Your task to perform on an android device: Clear all items from cart on target. Add logitech g pro to the cart on target Image 0: 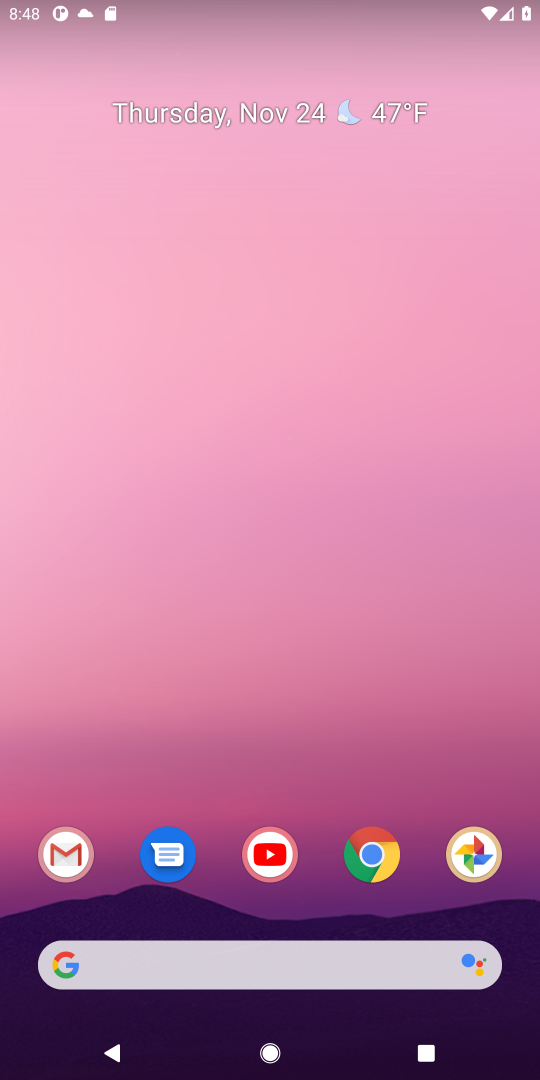
Step 0: click (370, 861)
Your task to perform on an android device: Clear all items from cart on target. Add logitech g pro to the cart on target Image 1: 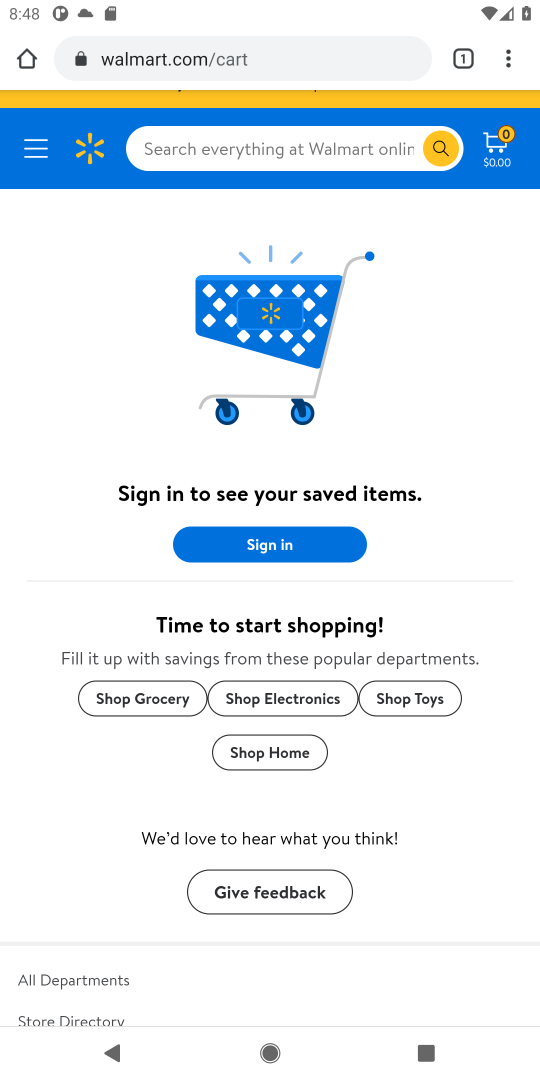
Step 1: click (201, 63)
Your task to perform on an android device: Clear all items from cart on target. Add logitech g pro to the cart on target Image 2: 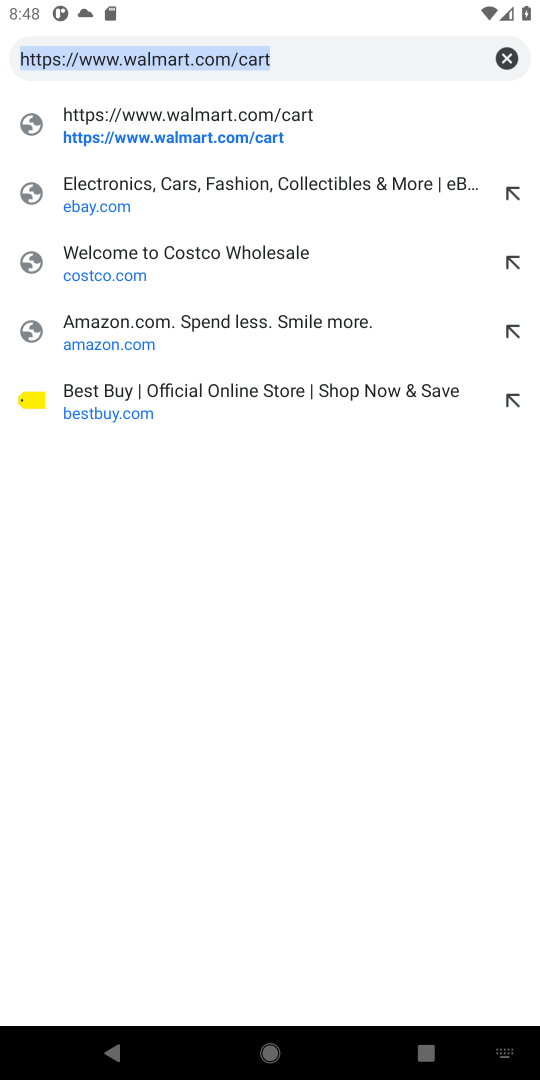
Step 2: type "target.com"
Your task to perform on an android device: Clear all items from cart on target. Add logitech g pro to the cart on target Image 3: 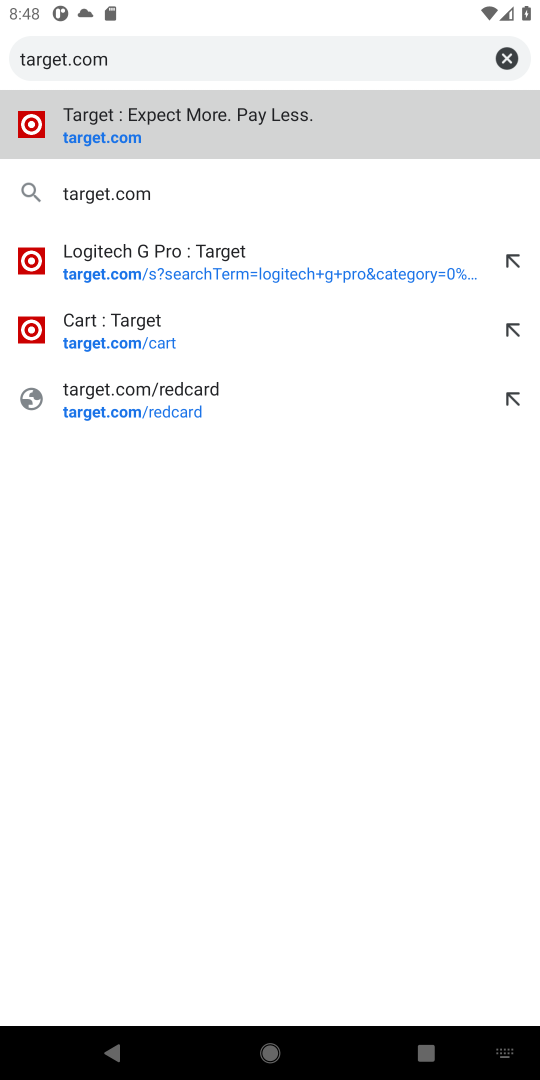
Step 3: click (123, 138)
Your task to perform on an android device: Clear all items from cart on target. Add logitech g pro to the cart on target Image 4: 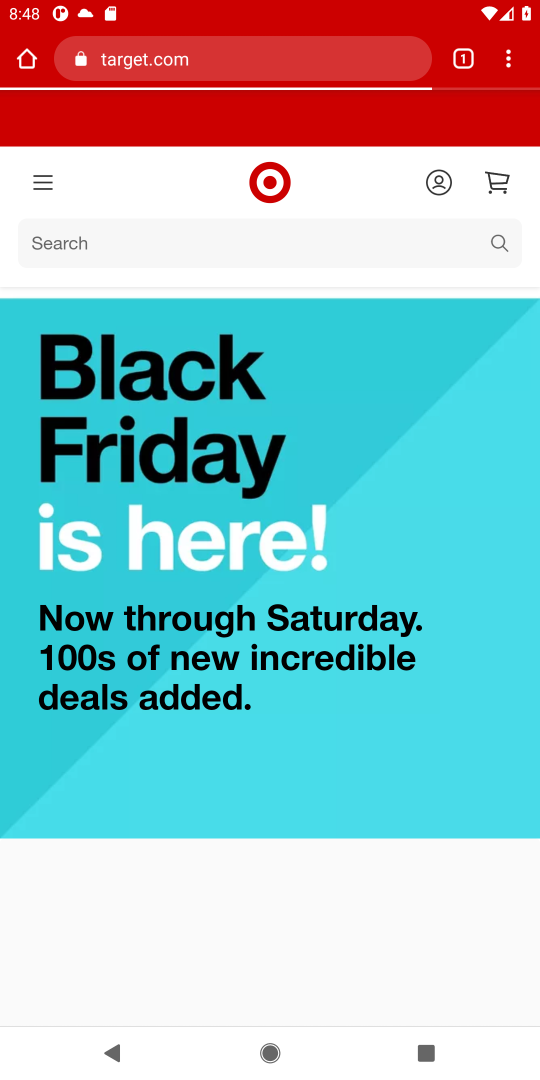
Step 4: click (498, 188)
Your task to perform on an android device: Clear all items from cart on target. Add logitech g pro to the cart on target Image 5: 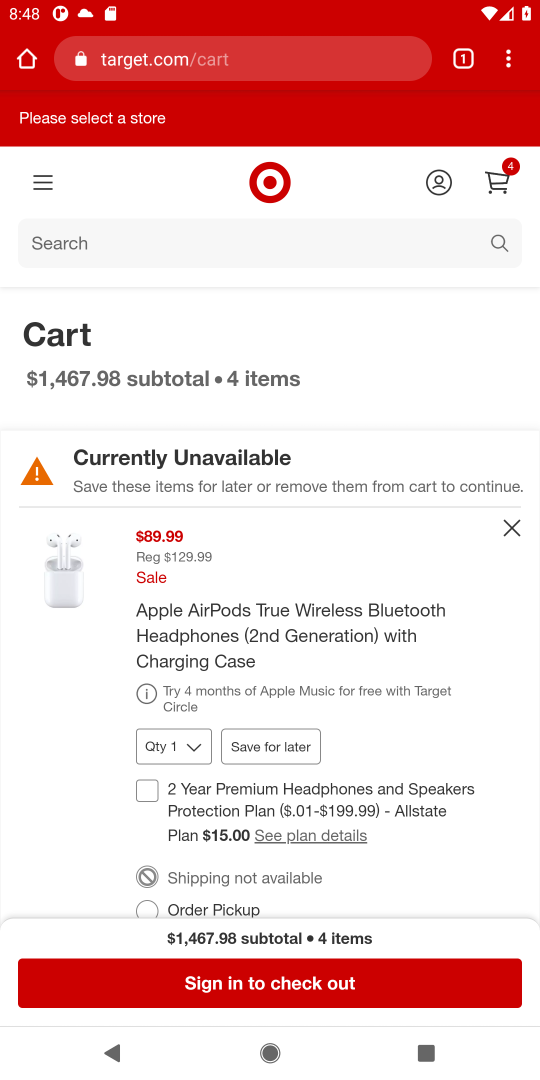
Step 5: click (514, 535)
Your task to perform on an android device: Clear all items from cart on target. Add logitech g pro to the cart on target Image 6: 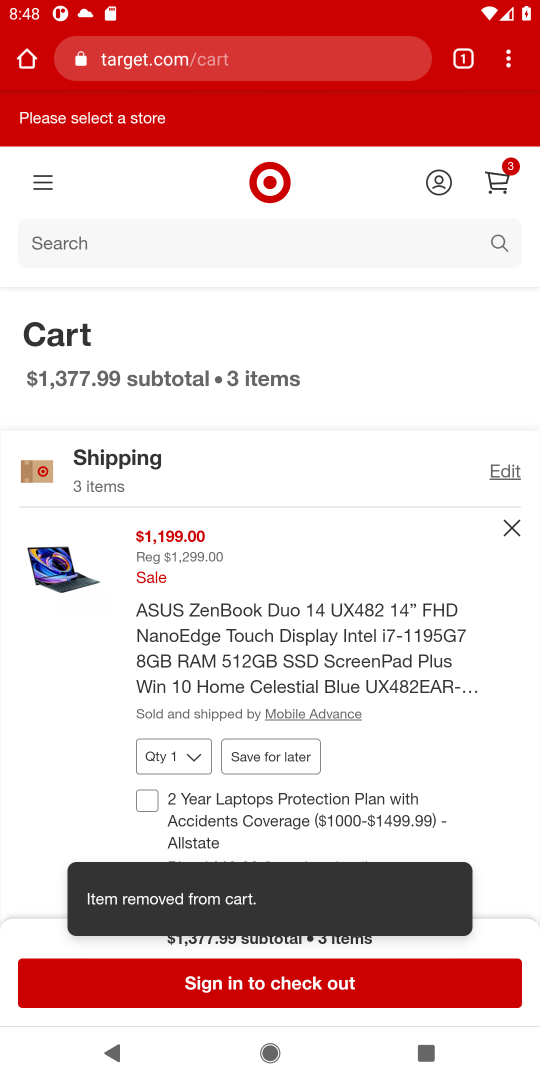
Step 6: click (514, 535)
Your task to perform on an android device: Clear all items from cart on target. Add logitech g pro to the cart on target Image 7: 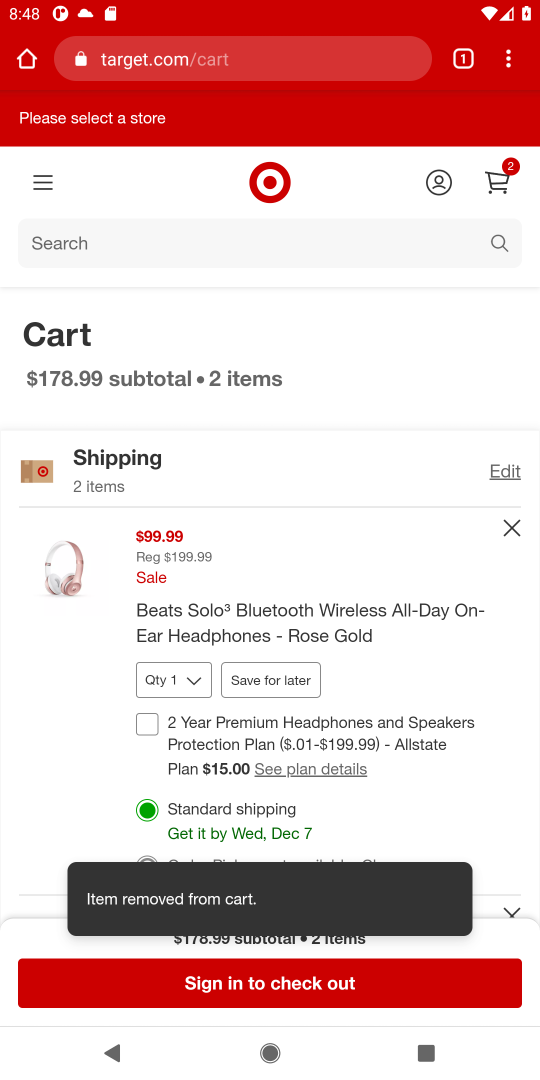
Step 7: click (514, 531)
Your task to perform on an android device: Clear all items from cart on target. Add logitech g pro to the cart on target Image 8: 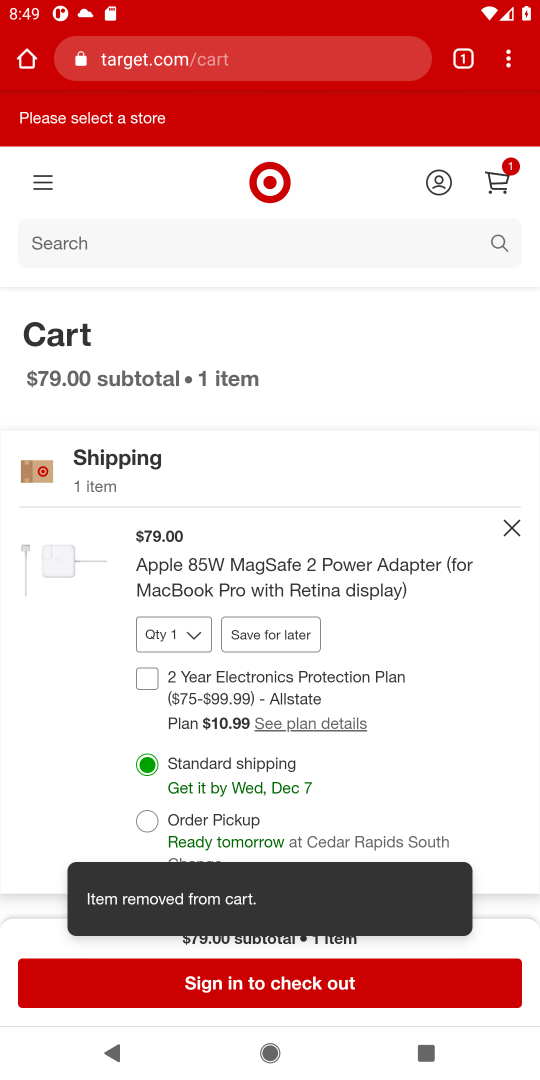
Step 8: click (514, 531)
Your task to perform on an android device: Clear all items from cart on target. Add logitech g pro to the cart on target Image 9: 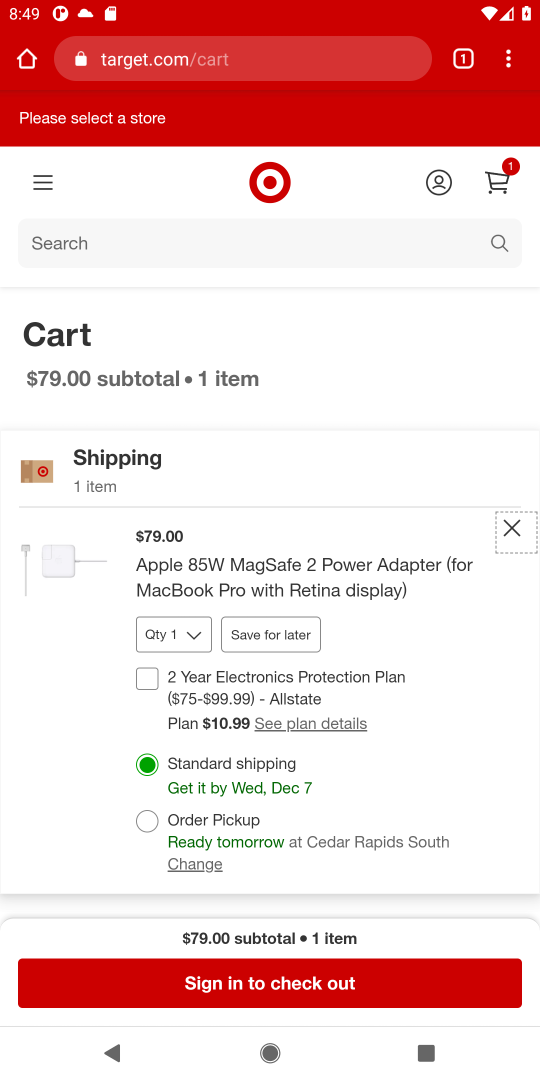
Step 9: click (514, 531)
Your task to perform on an android device: Clear all items from cart on target. Add logitech g pro to the cart on target Image 10: 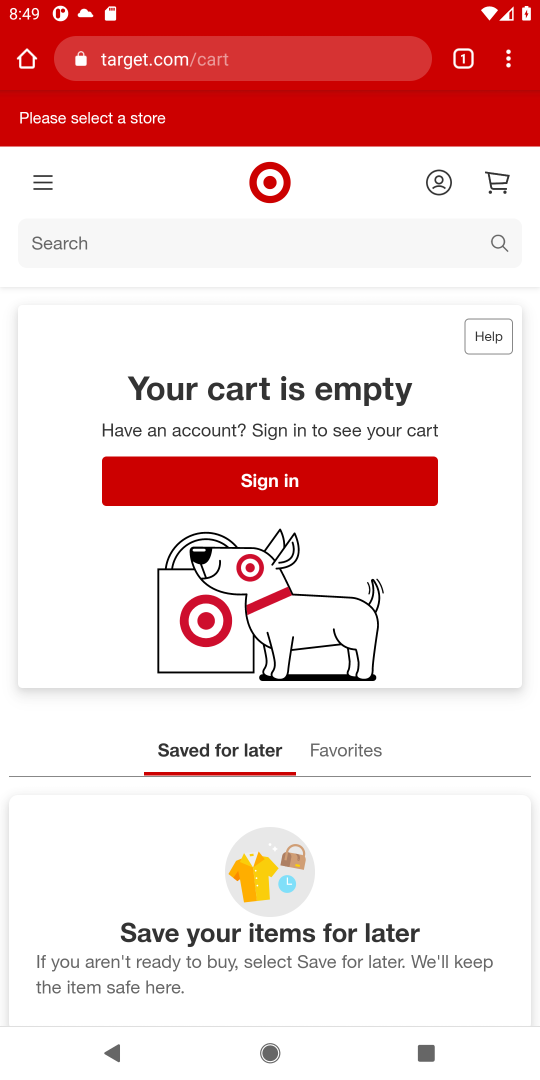
Step 10: click (426, 242)
Your task to perform on an android device: Clear all items from cart on target. Add logitech g pro to the cart on target Image 11: 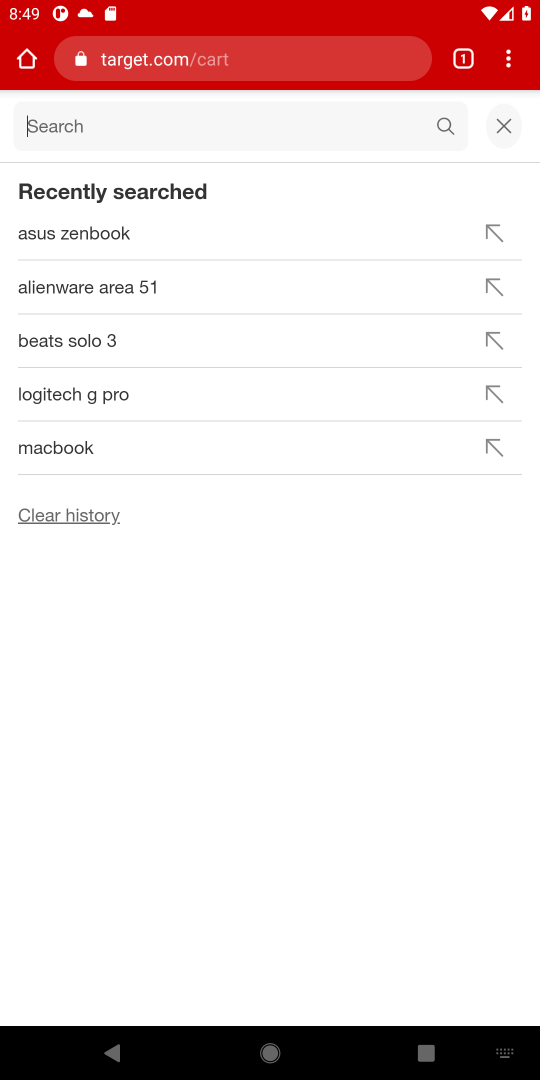
Step 11: type "logitech g pro"
Your task to perform on an android device: Clear all items from cart on target. Add logitech g pro to the cart on target Image 12: 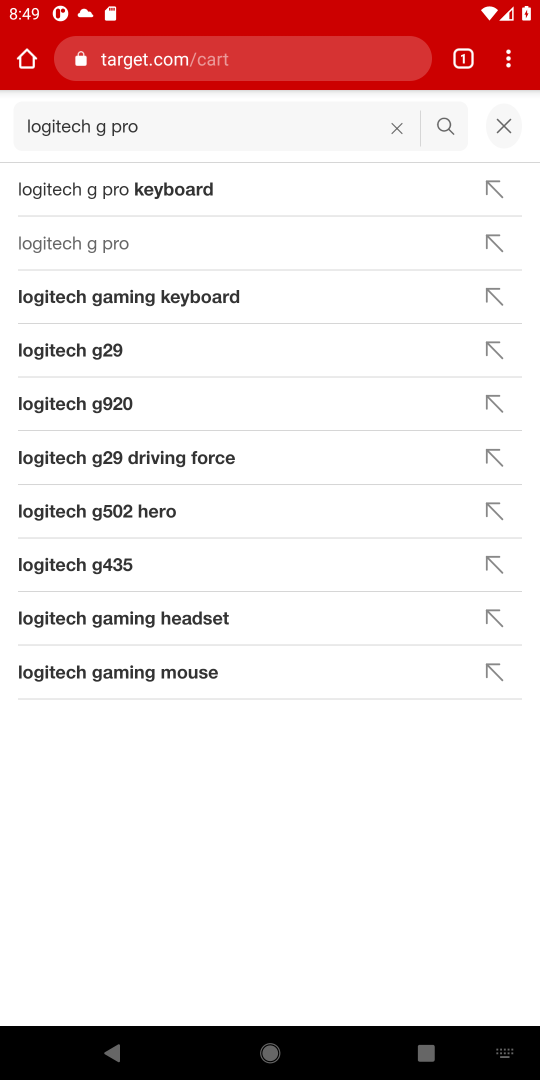
Step 12: click (110, 247)
Your task to perform on an android device: Clear all items from cart on target. Add logitech g pro to the cart on target Image 13: 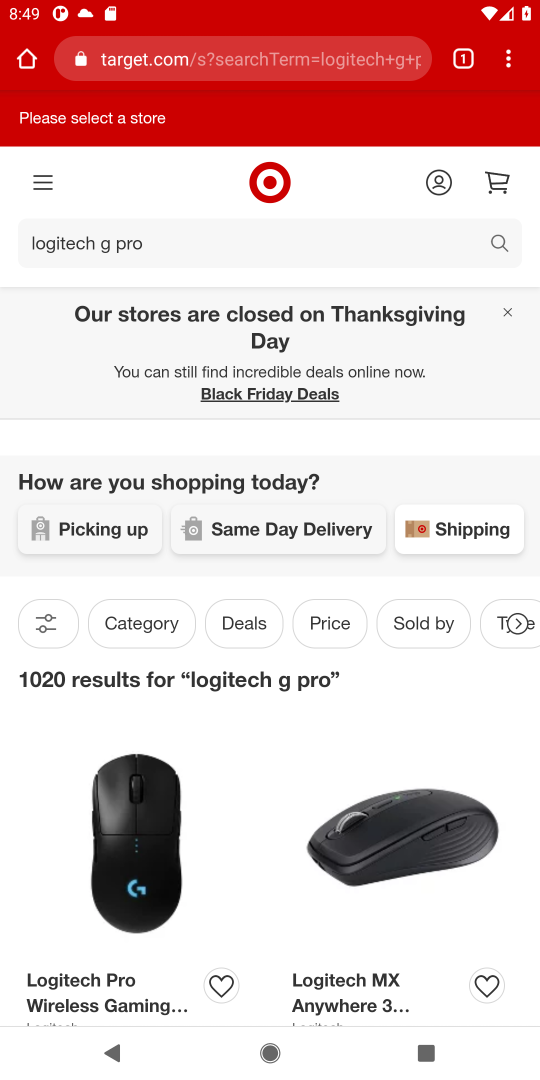
Step 13: task complete